Your task to perform on an android device: turn off airplane mode Image 0: 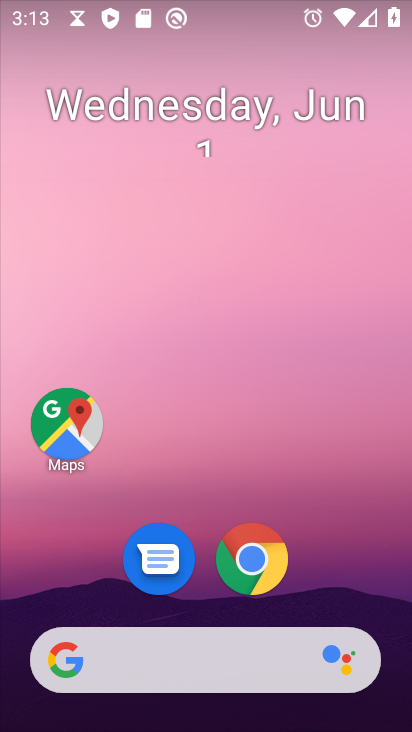
Step 0: drag from (314, 568) to (305, 34)
Your task to perform on an android device: turn off airplane mode Image 1: 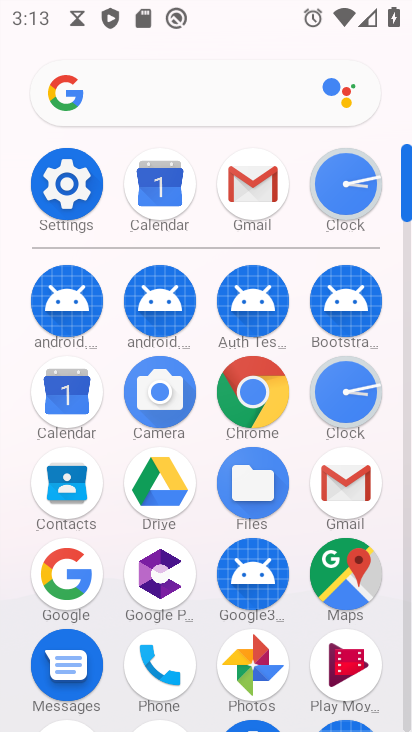
Step 1: click (74, 184)
Your task to perform on an android device: turn off airplane mode Image 2: 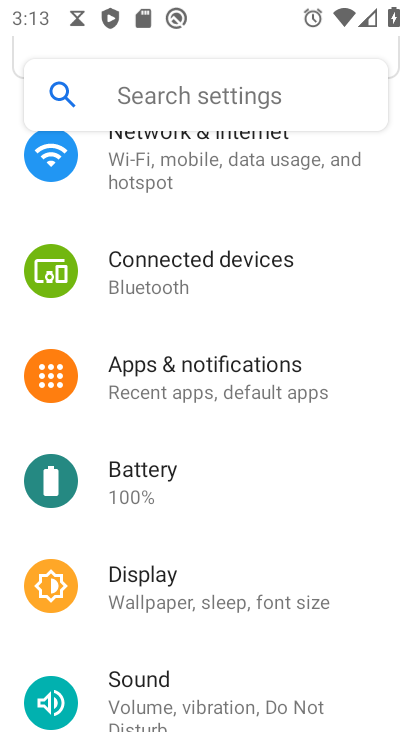
Step 2: drag from (209, 257) to (249, 696)
Your task to perform on an android device: turn off airplane mode Image 3: 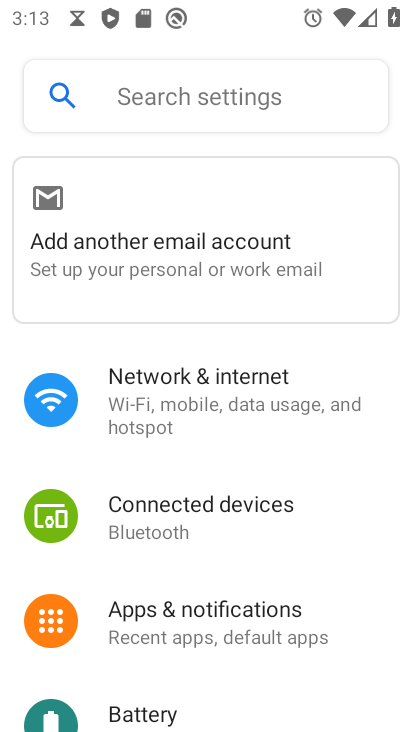
Step 3: click (214, 420)
Your task to perform on an android device: turn off airplane mode Image 4: 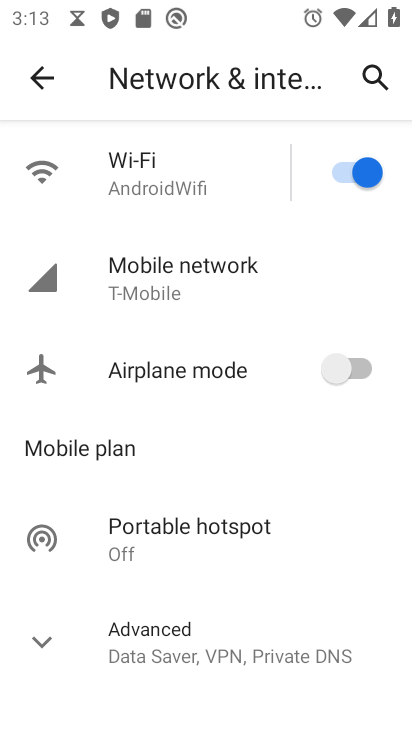
Step 4: task complete